Your task to perform on an android device: Search for vegetarian restaurants on Maps Image 0: 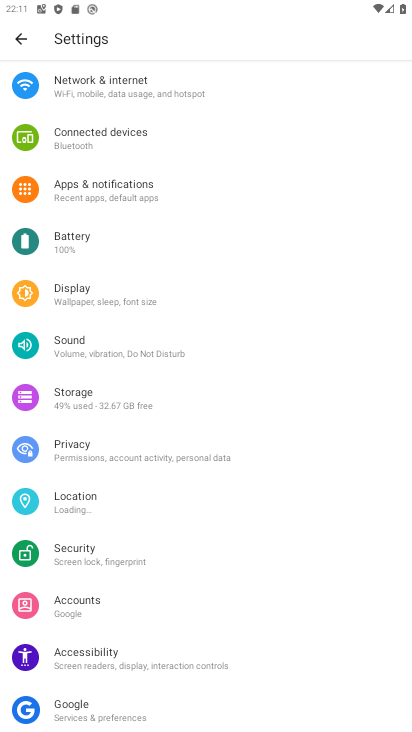
Step 0: press home button
Your task to perform on an android device: Search for vegetarian restaurants on Maps Image 1: 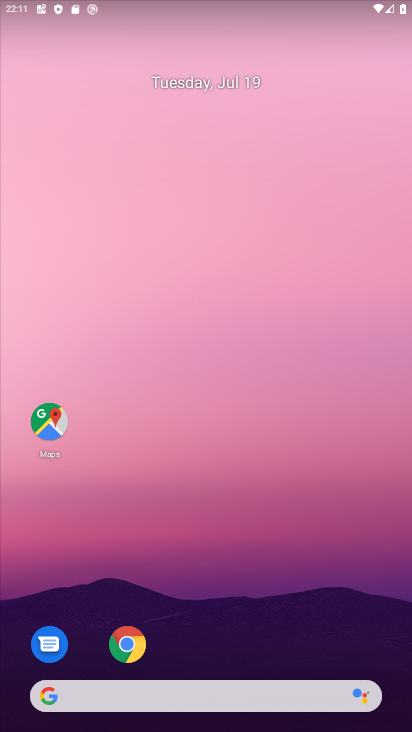
Step 1: drag from (285, 569) to (314, 52)
Your task to perform on an android device: Search for vegetarian restaurants on Maps Image 2: 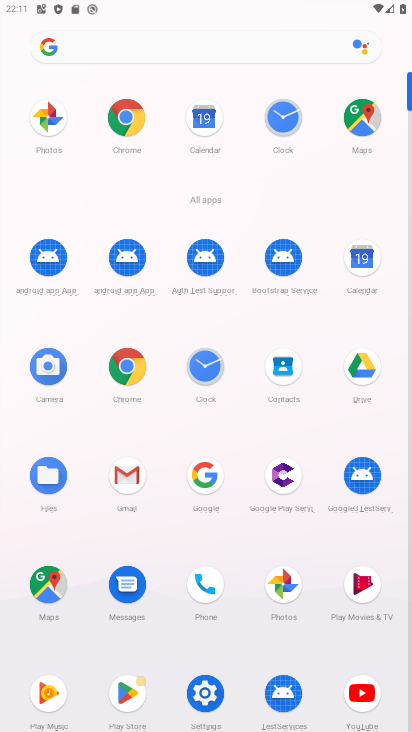
Step 2: click (44, 582)
Your task to perform on an android device: Search for vegetarian restaurants on Maps Image 3: 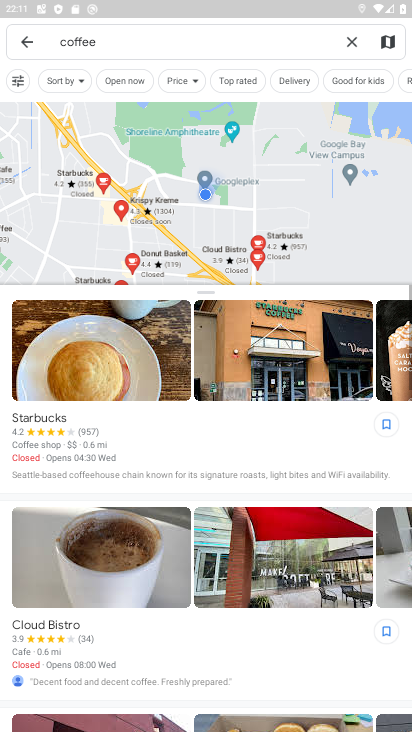
Step 3: click (344, 36)
Your task to perform on an android device: Search for vegetarian restaurants on Maps Image 4: 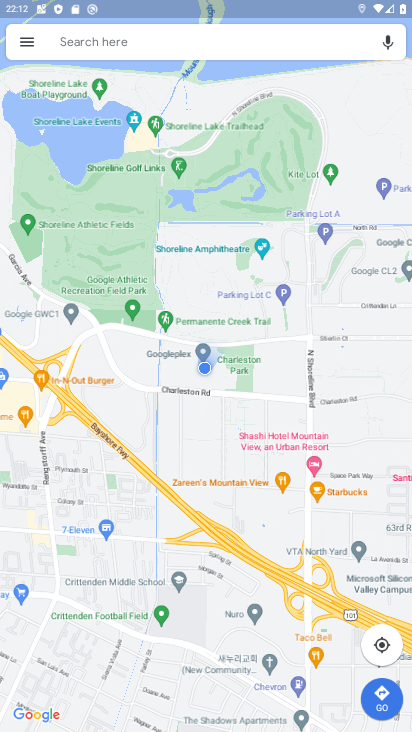
Step 4: click (207, 39)
Your task to perform on an android device: Search for vegetarian restaurants on Maps Image 5: 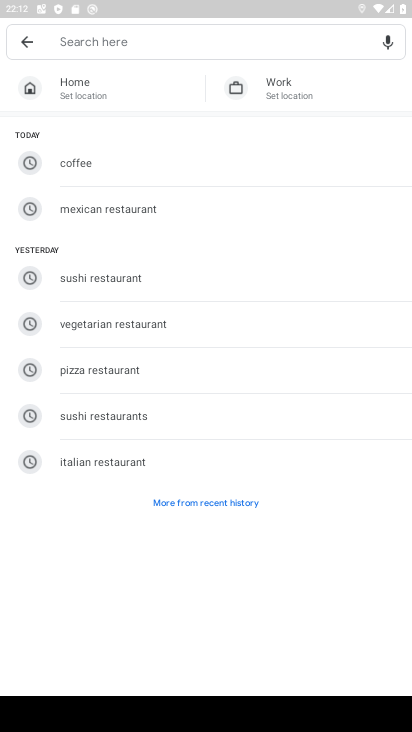
Step 5: type "vegetarian restaurants "
Your task to perform on an android device: Search for vegetarian restaurants on Maps Image 6: 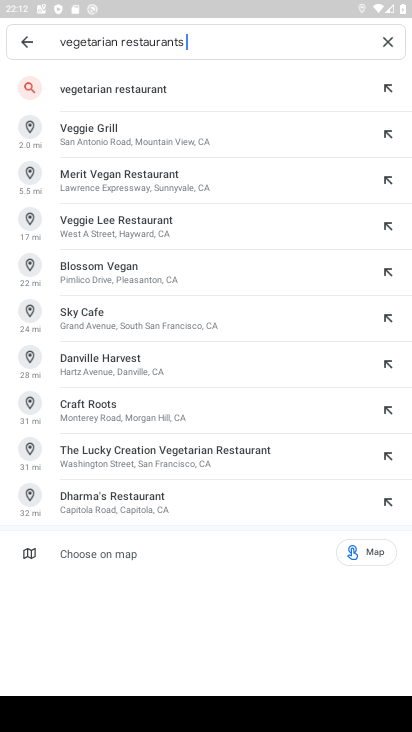
Step 6: click (127, 94)
Your task to perform on an android device: Search for vegetarian restaurants on Maps Image 7: 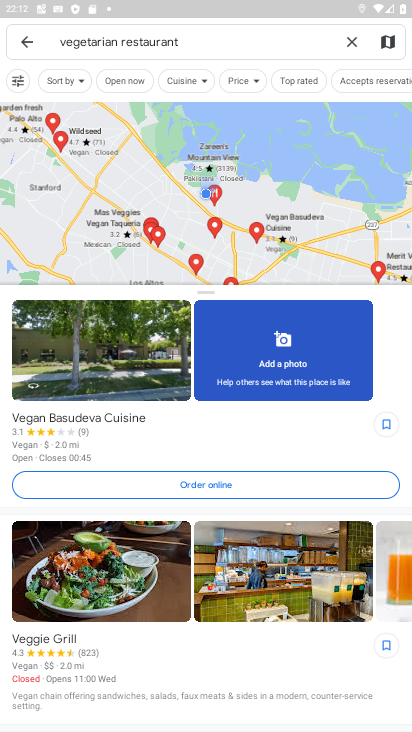
Step 7: task complete